Your task to perform on an android device: Go to Maps Image 0: 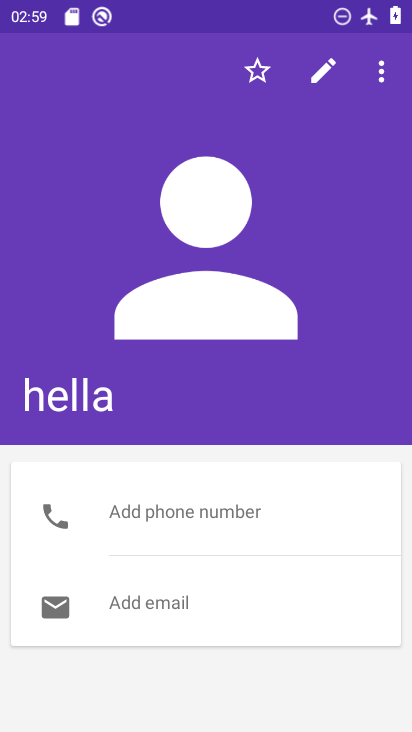
Step 0: press home button
Your task to perform on an android device: Go to Maps Image 1: 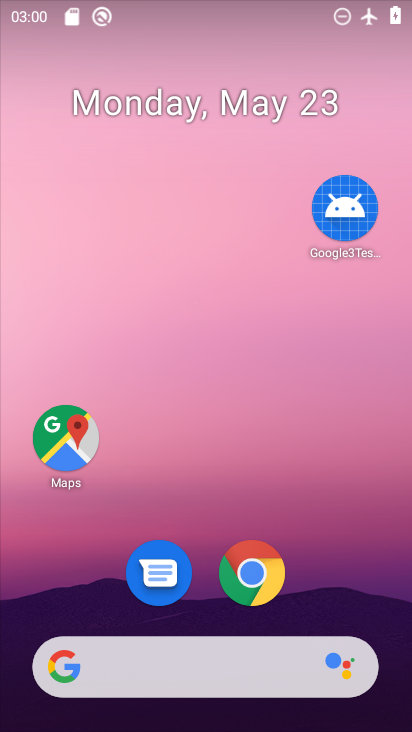
Step 1: click (82, 451)
Your task to perform on an android device: Go to Maps Image 2: 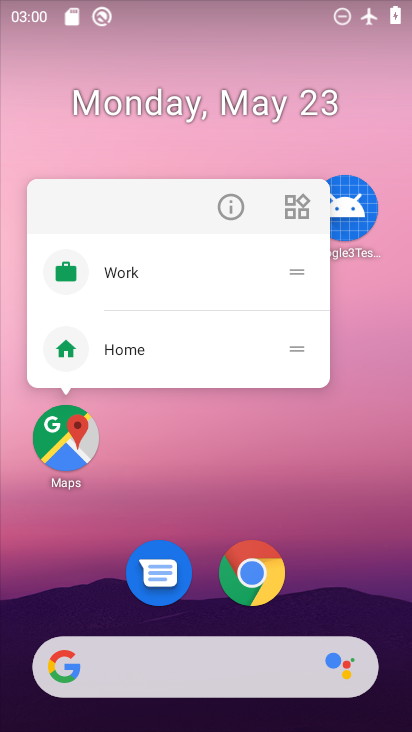
Step 2: click (66, 448)
Your task to perform on an android device: Go to Maps Image 3: 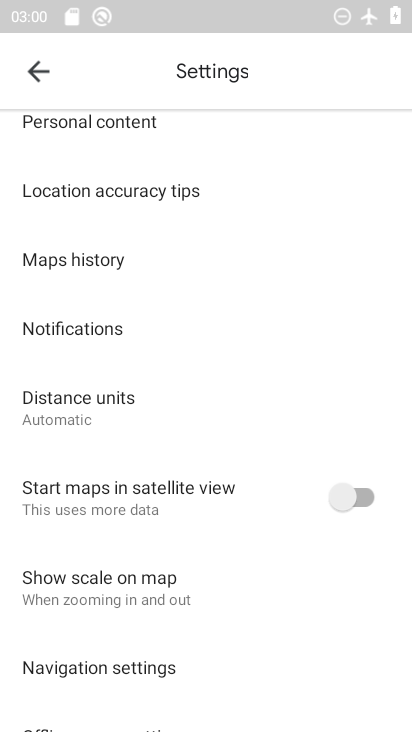
Step 3: task complete